Your task to perform on an android device: Open calendar and show me the second week of next month Image 0: 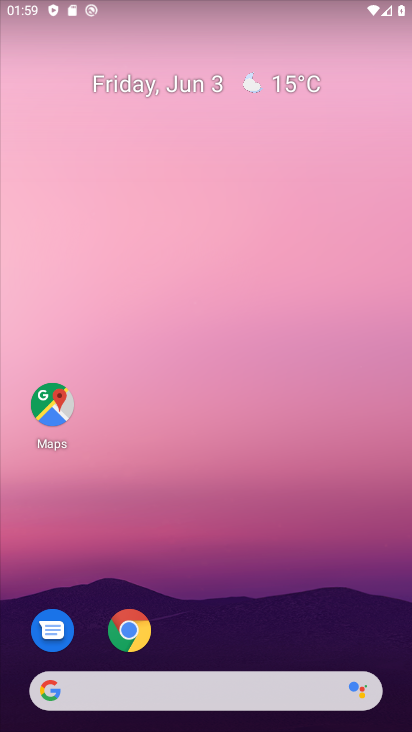
Step 0: drag from (370, 533) to (367, 160)
Your task to perform on an android device: Open calendar and show me the second week of next month Image 1: 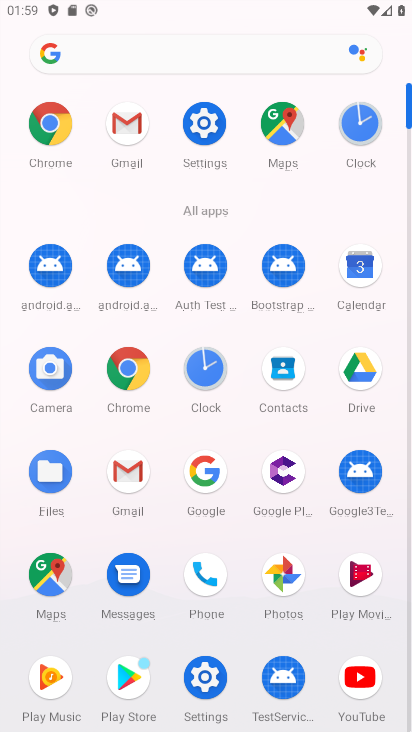
Step 1: click (360, 270)
Your task to perform on an android device: Open calendar and show me the second week of next month Image 2: 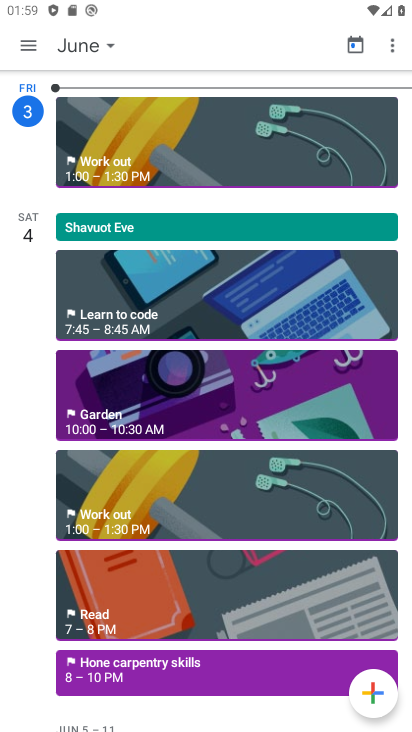
Step 2: click (110, 51)
Your task to perform on an android device: Open calendar and show me the second week of next month Image 3: 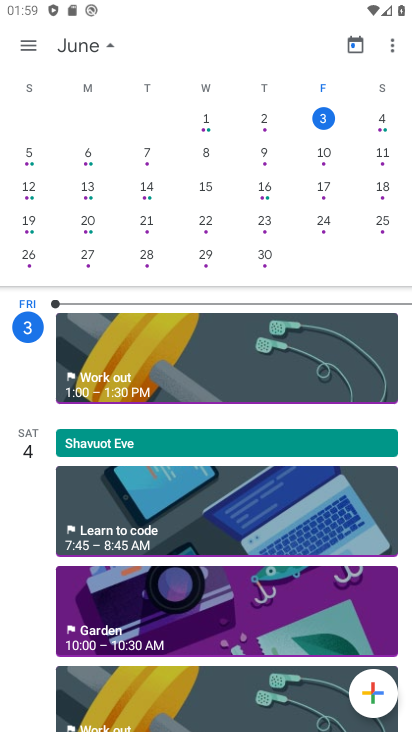
Step 3: drag from (394, 181) to (88, 164)
Your task to perform on an android device: Open calendar and show me the second week of next month Image 4: 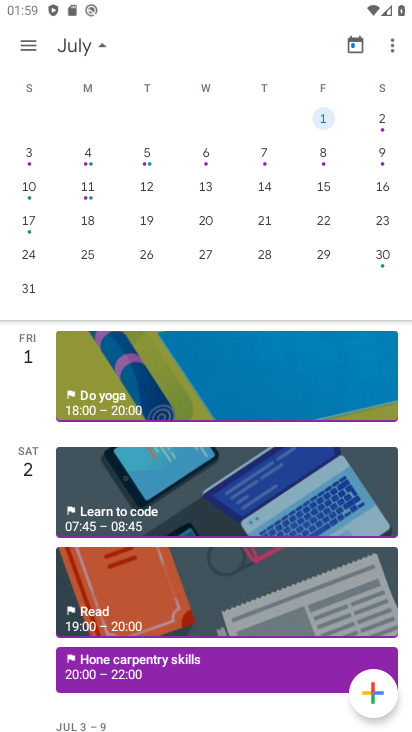
Step 4: click (143, 154)
Your task to perform on an android device: Open calendar and show me the second week of next month Image 5: 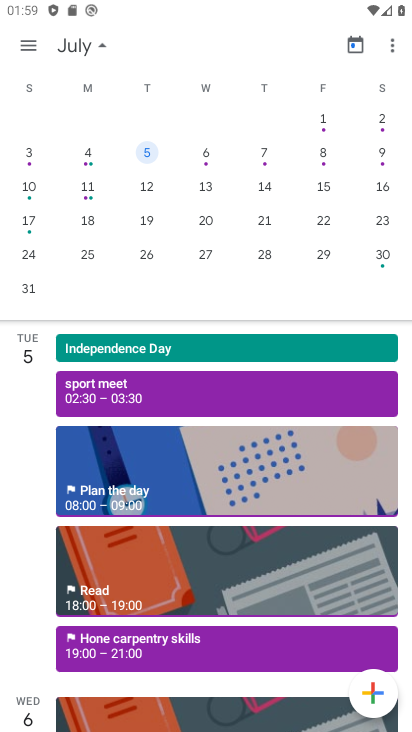
Step 5: click (22, 45)
Your task to perform on an android device: Open calendar and show me the second week of next month Image 6: 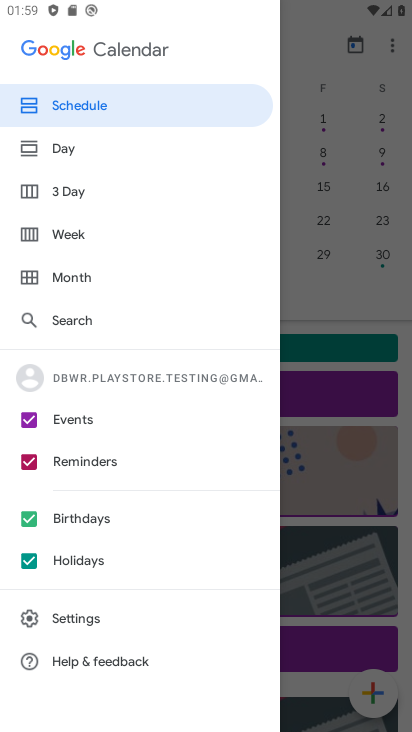
Step 6: click (71, 226)
Your task to perform on an android device: Open calendar and show me the second week of next month Image 7: 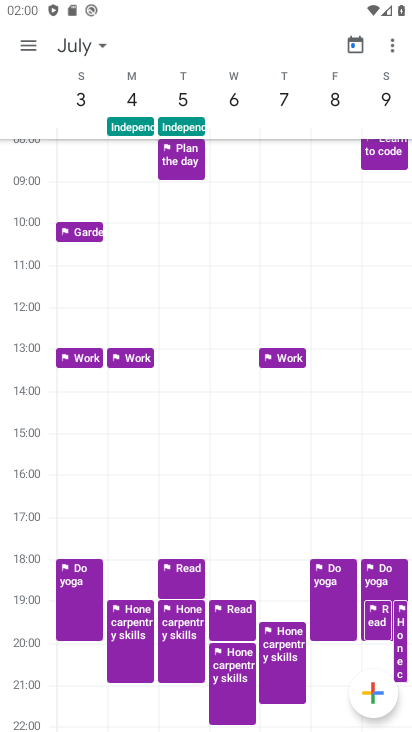
Step 7: task complete